Your task to perform on an android device: Open Google Image 0: 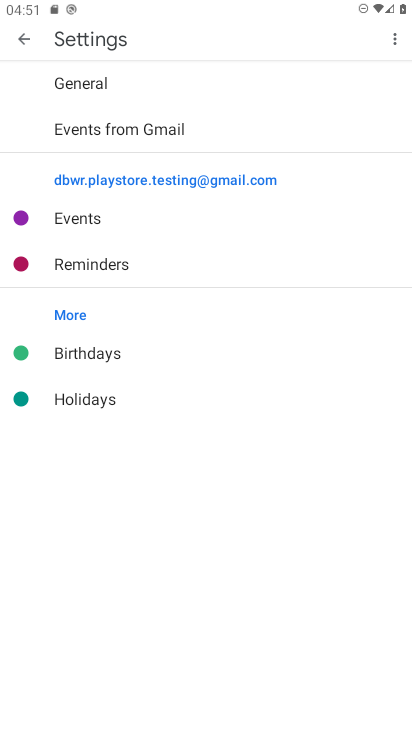
Step 0: press home button
Your task to perform on an android device: Open Google Image 1: 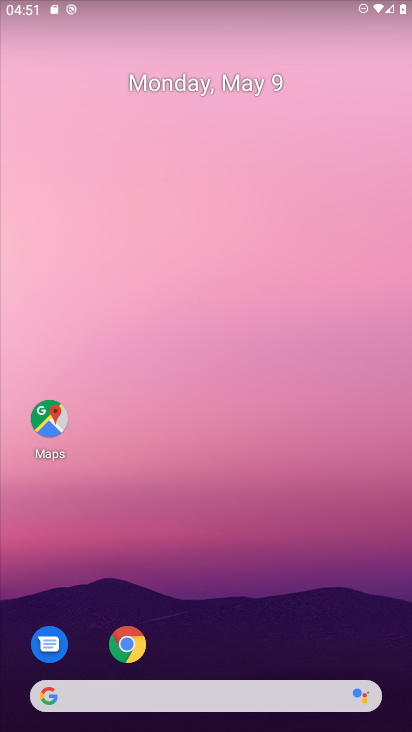
Step 1: drag from (230, 614) to (193, 72)
Your task to perform on an android device: Open Google Image 2: 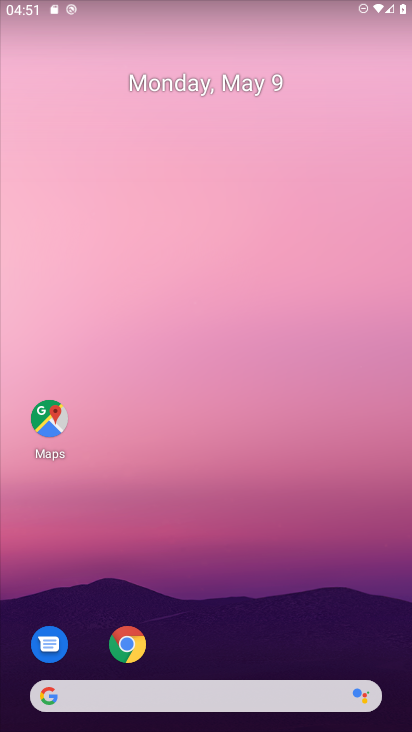
Step 2: drag from (197, 511) to (145, 18)
Your task to perform on an android device: Open Google Image 3: 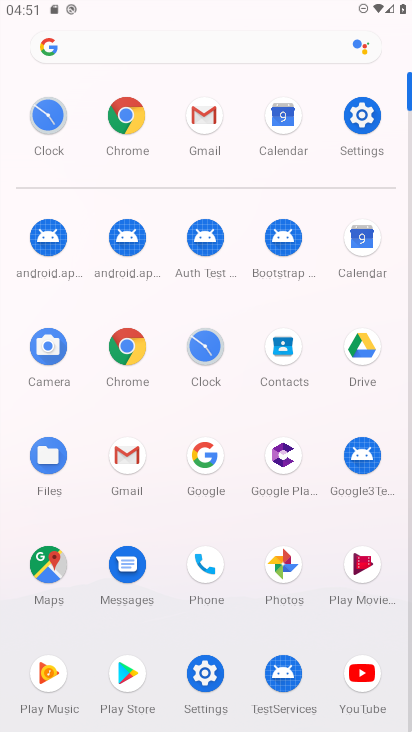
Step 3: click (205, 452)
Your task to perform on an android device: Open Google Image 4: 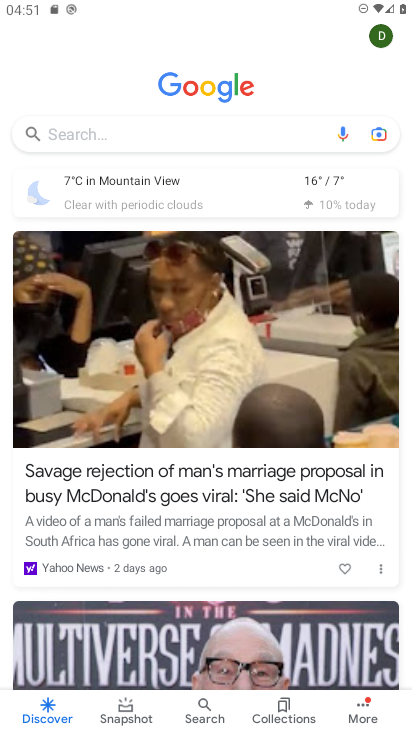
Step 4: task complete